Your task to perform on an android device: Open eBay Image 0: 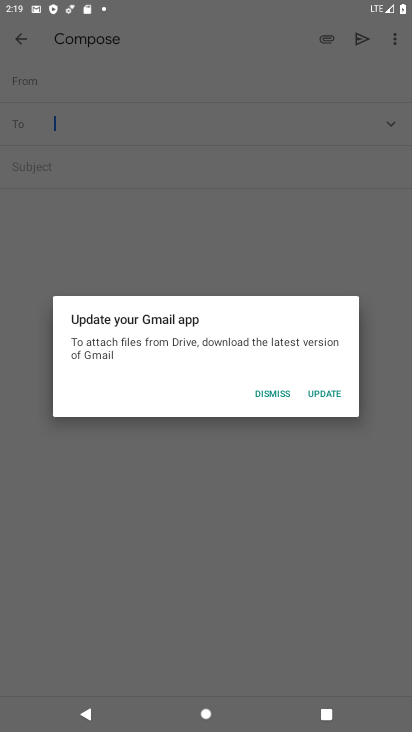
Step 0: click (101, 479)
Your task to perform on an android device: Open eBay Image 1: 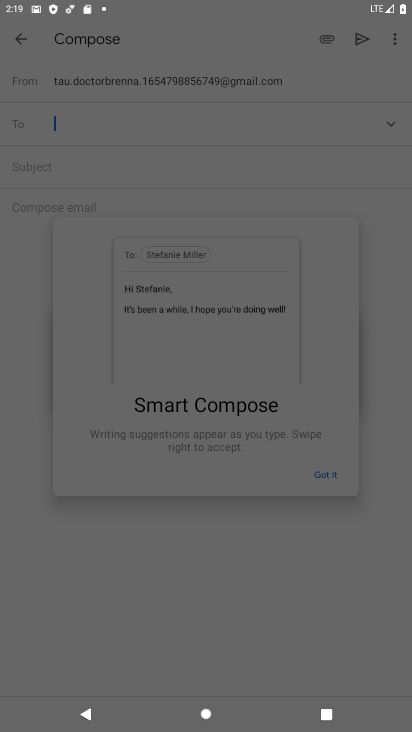
Step 1: press home button
Your task to perform on an android device: Open eBay Image 2: 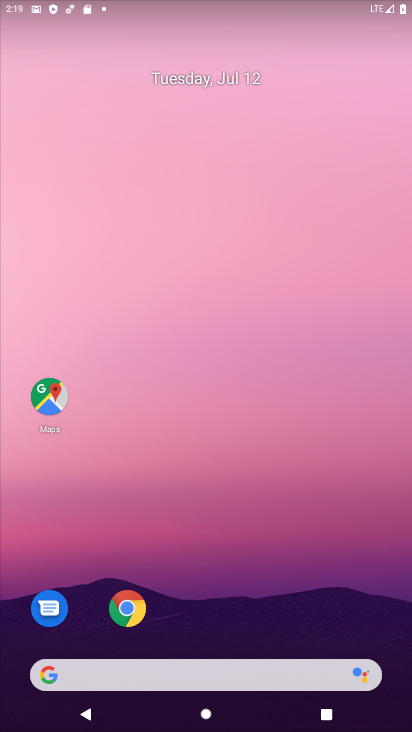
Step 2: click (123, 623)
Your task to perform on an android device: Open eBay Image 3: 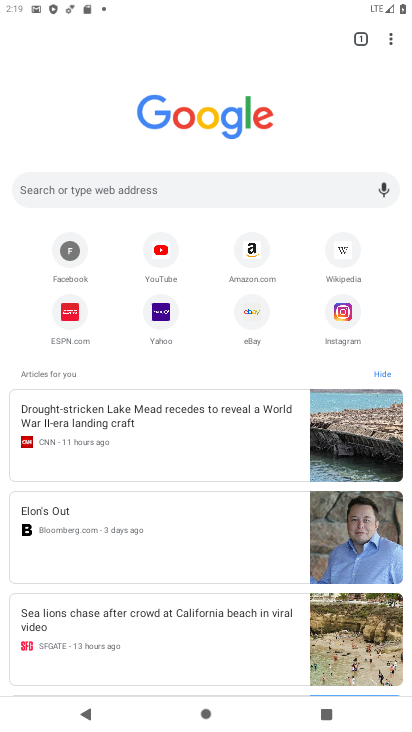
Step 3: click (123, 623)
Your task to perform on an android device: Open eBay Image 4: 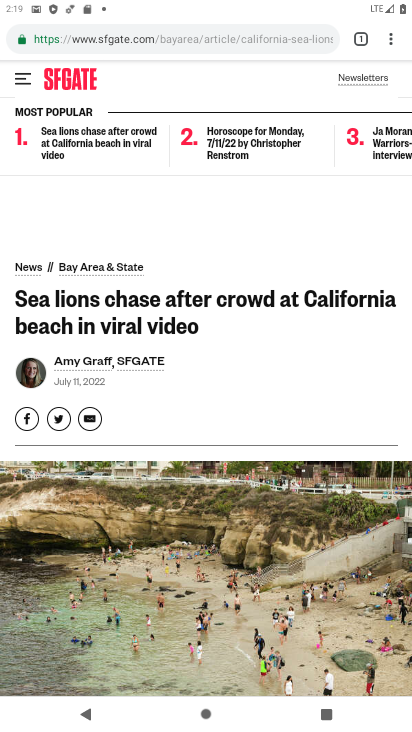
Step 4: press back button
Your task to perform on an android device: Open eBay Image 5: 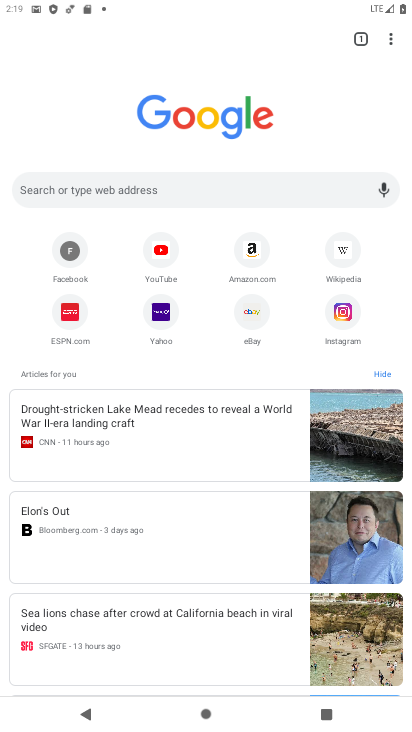
Step 5: click (258, 334)
Your task to perform on an android device: Open eBay Image 6: 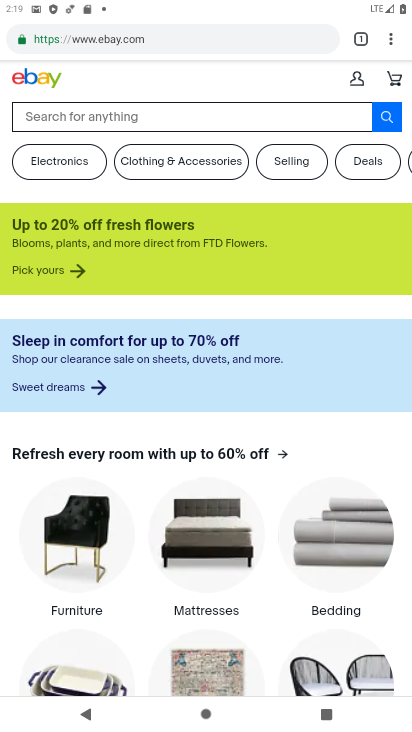
Step 6: click (258, 334)
Your task to perform on an android device: Open eBay Image 7: 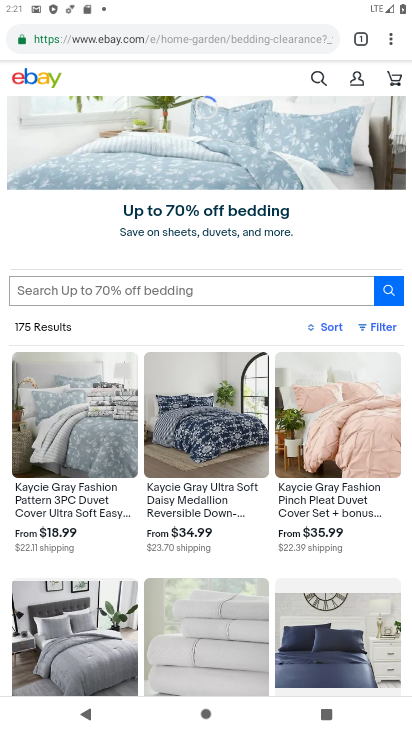
Step 7: task complete